Your task to perform on an android device: open the mobile data screen to see how much data has been used Image 0: 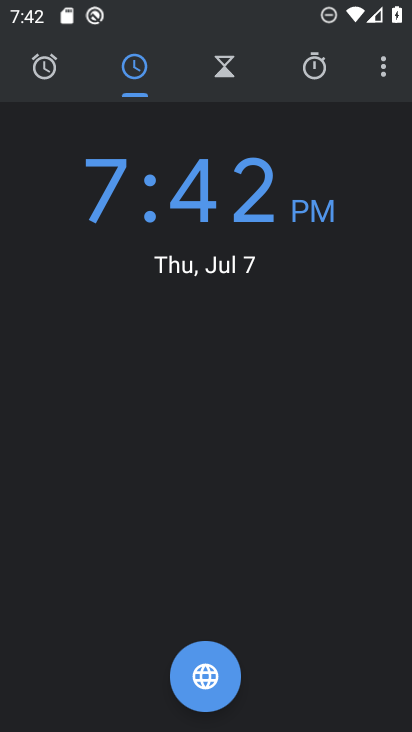
Step 0: press home button
Your task to perform on an android device: open the mobile data screen to see how much data has been used Image 1: 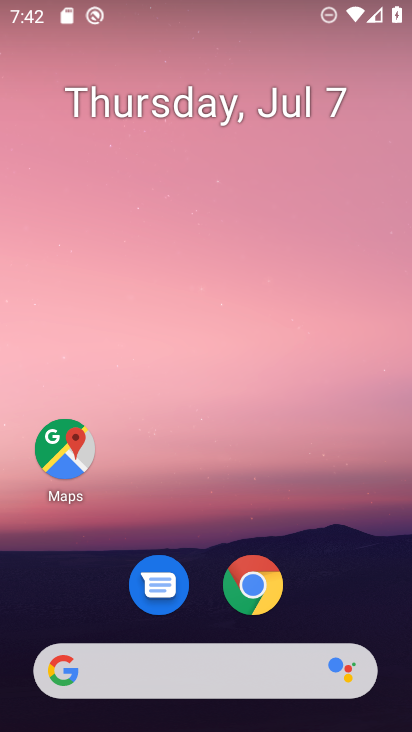
Step 1: drag from (192, 683) to (287, 148)
Your task to perform on an android device: open the mobile data screen to see how much data has been used Image 2: 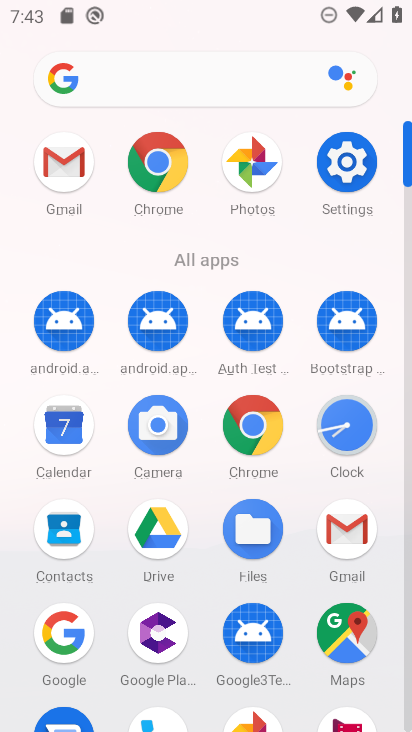
Step 2: click (350, 162)
Your task to perform on an android device: open the mobile data screen to see how much data has been used Image 3: 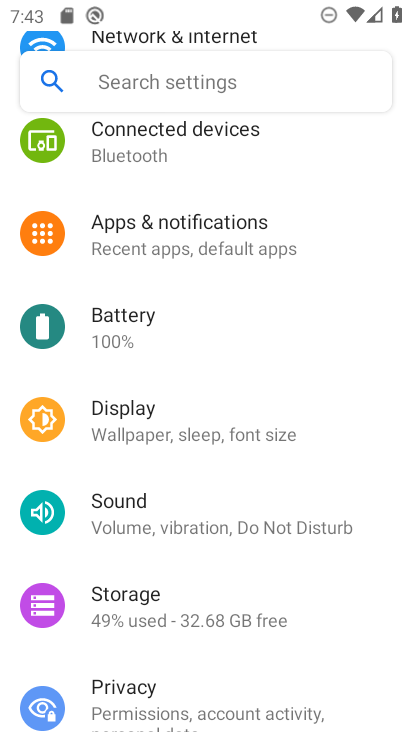
Step 3: drag from (281, 167) to (249, 650)
Your task to perform on an android device: open the mobile data screen to see how much data has been used Image 4: 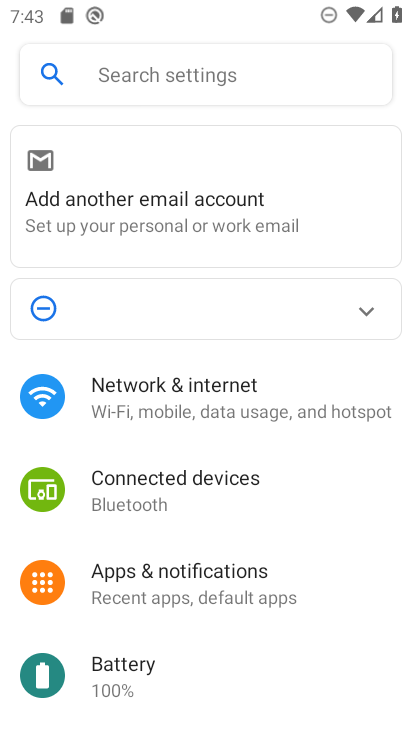
Step 4: click (200, 402)
Your task to perform on an android device: open the mobile data screen to see how much data has been used Image 5: 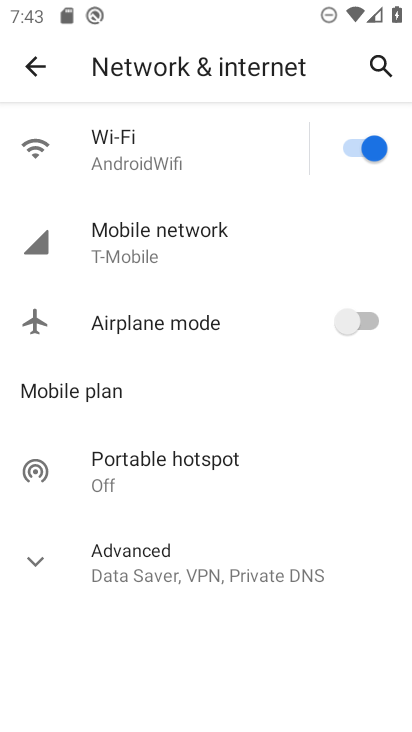
Step 5: click (188, 241)
Your task to perform on an android device: open the mobile data screen to see how much data has been used Image 6: 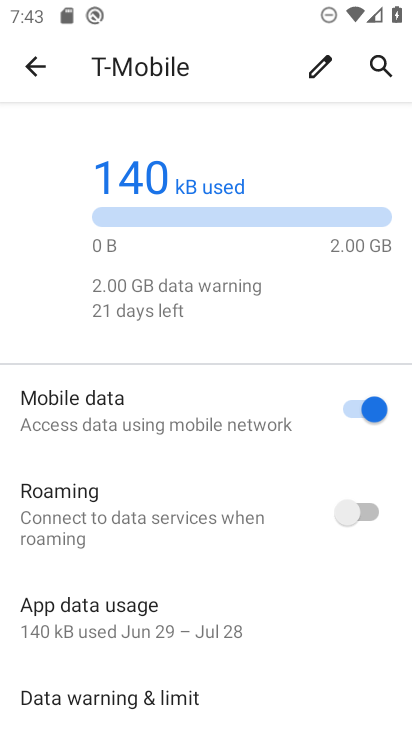
Step 6: task complete